Your task to perform on an android device: turn notification dots on Image 0: 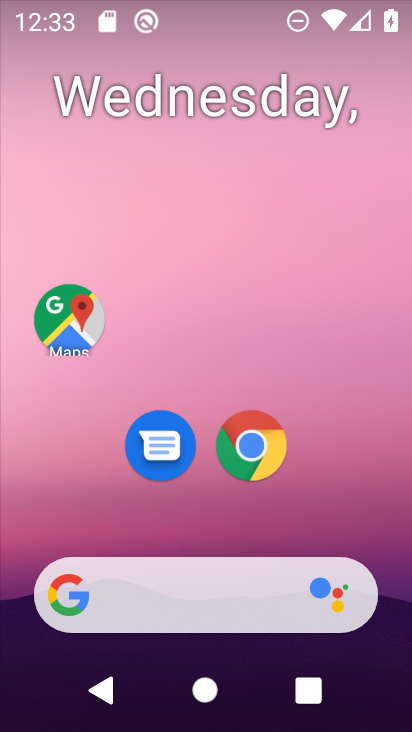
Step 0: drag from (382, 630) to (268, 44)
Your task to perform on an android device: turn notification dots on Image 1: 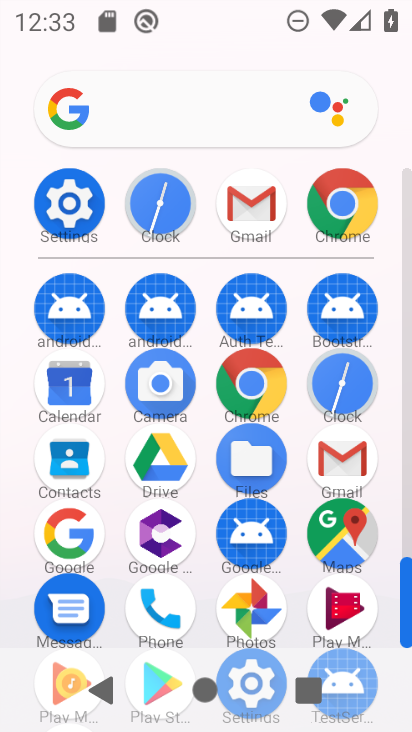
Step 1: click (78, 204)
Your task to perform on an android device: turn notification dots on Image 2: 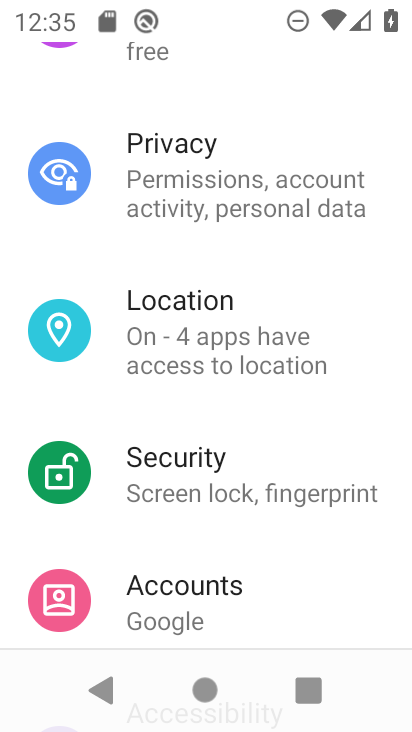
Step 2: drag from (213, 191) to (299, 625)
Your task to perform on an android device: turn notification dots on Image 3: 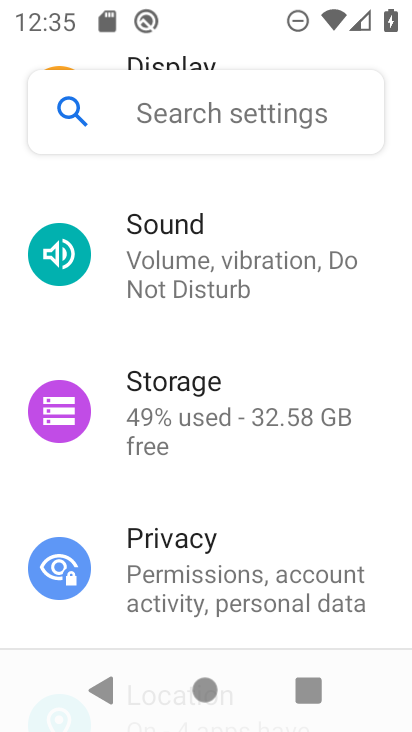
Step 3: drag from (206, 219) to (276, 622)
Your task to perform on an android device: turn notification dots on Image 4: 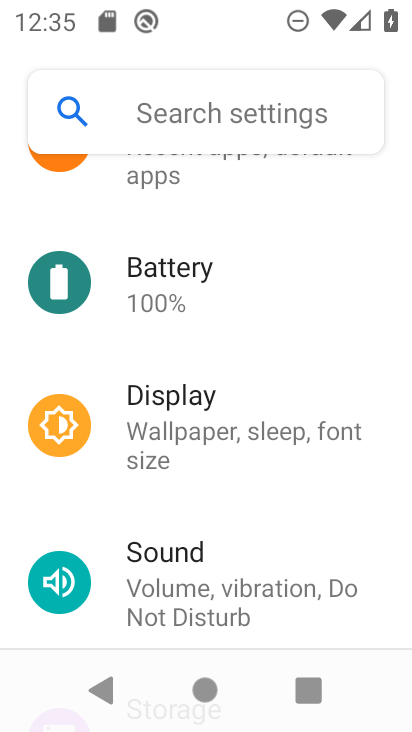
Step 4: drag from (232, 194) to (255, 623)
Your task to perform on an android device: turn notification dots on Image 5: 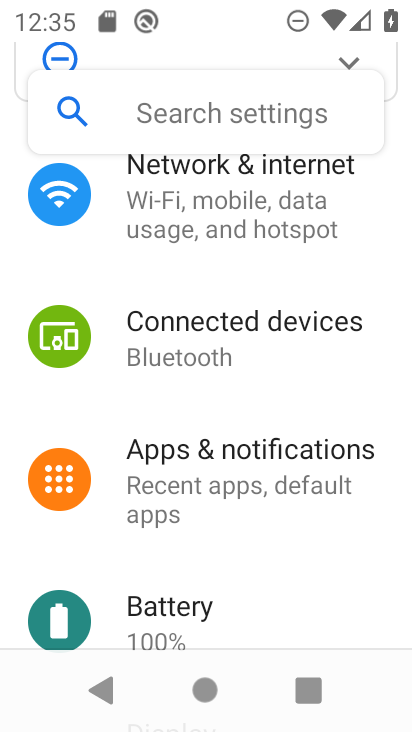
Step 5: click (257, 481)
Your task to perform on an android device: turn notification dots on Image 6: 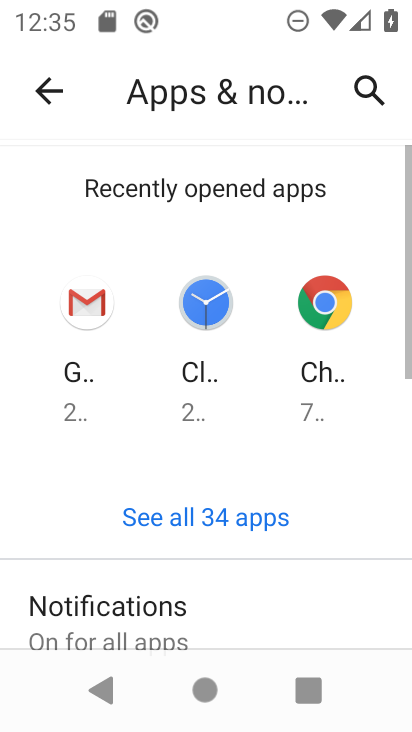
Step 6: click (173, 615)
Your task to perform on an android device: turn notification dots on Image 7: 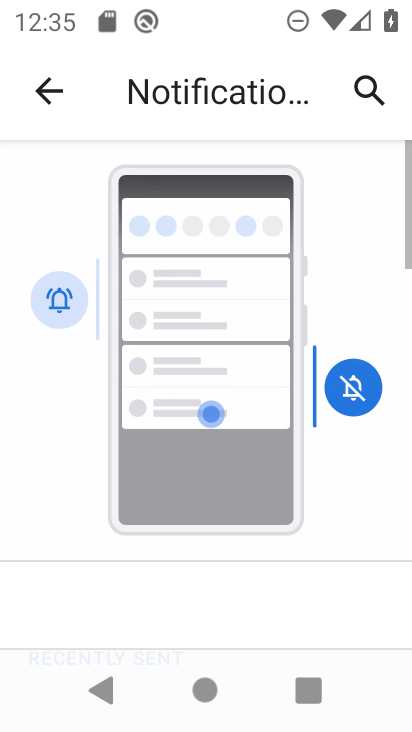
Step 7: drag from (169, 597) to (222, 6)
Your task to perform on an android device: turn notification dots on Image 8: 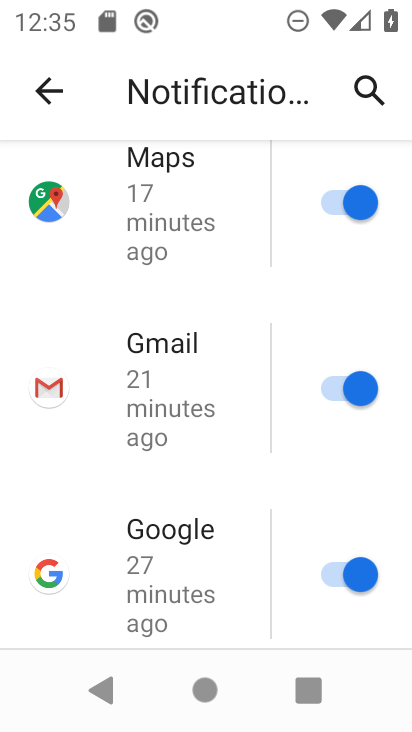
Step 8: drag from (114, 609) to (152, 13)
Your task to perform on an android device: turn notification dots on Image 9: 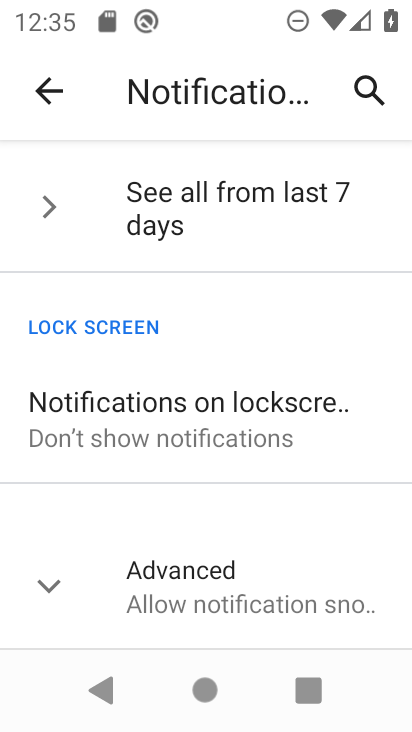
Step 9: click (141, 584)
Your task to perform on an android device: turn notification dots on Image 10: 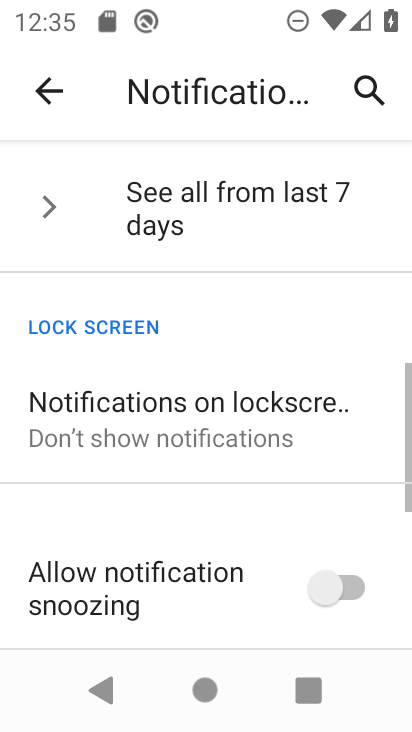
Step 10: task complete